Your task to perform on an android device: Go to accessibility settings Image 0: 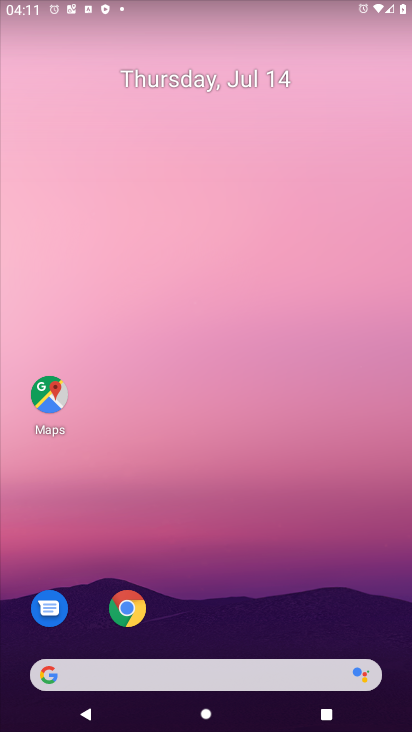
Step 0: drag from (381, 608) to (351, 162)
Your task to perform on an android device: Go to accessibility settings Image 1: 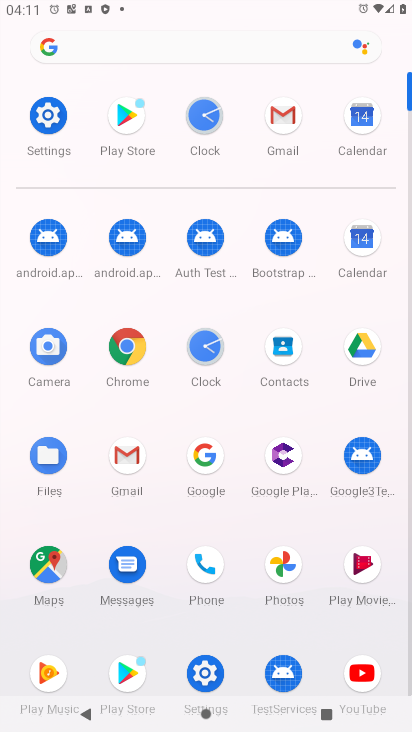
Step 1: click (202, 673)
Your task to perform on an android device: Go to accessibility settings Image 2: 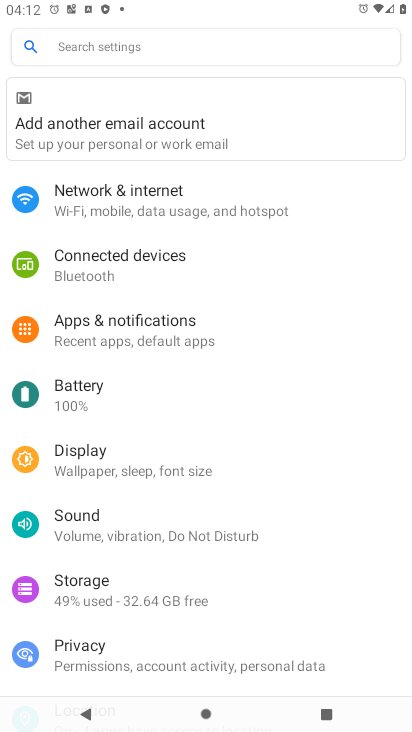
Step 2: drag from (320, 640) to (319, 268)
Your task to perform on an android device: Go to accessibility settings Image 3: 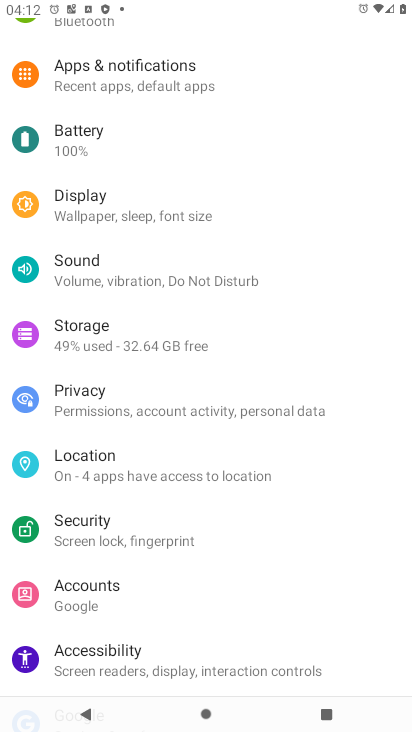
Step 3: drag from (263, 591) to (294, 282)
Your task to perform on an android device: Go to accessibility settings Image 4: 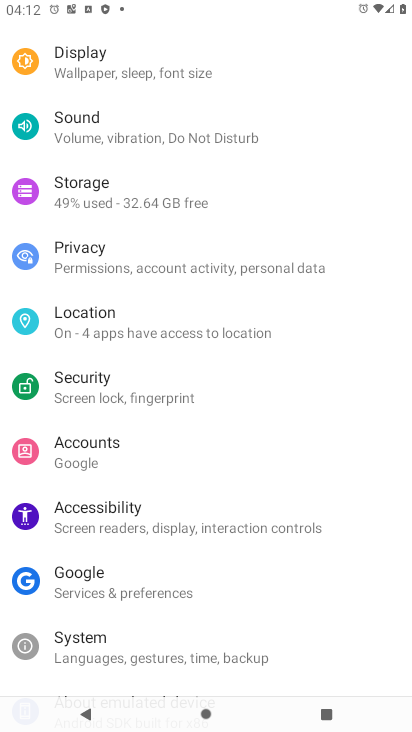
Step 4: click (105, 510)
Your task to perform on an android device: Go to accessibility settings Image 5: 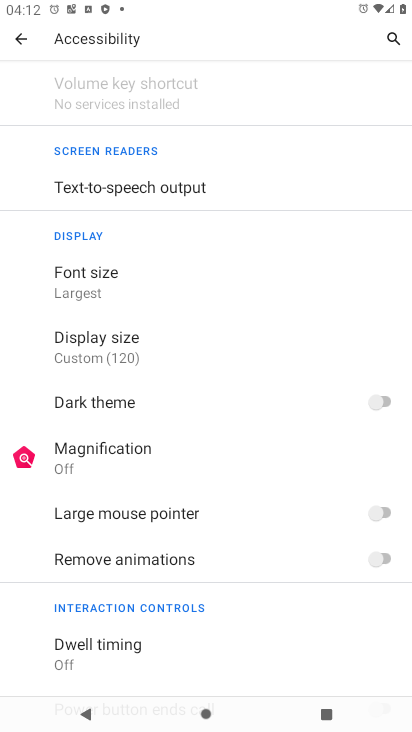
Step 5: task complete